Your task to perform on an android device: clear history in the chrome app Image 0: 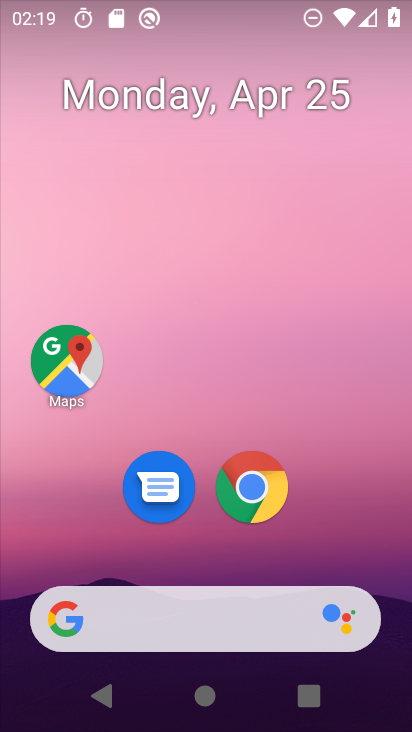
Step 0: drag from (357, 639) to (315, 233)
Your task to perform on an android device: clear history in the chrome app Image 1: 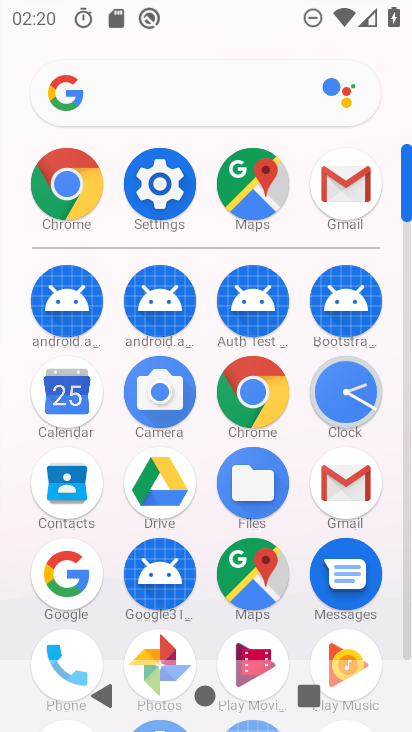
Step 1: click (70, 208)
Your task to perform on an android device: clear history in the chrome app Image 2: 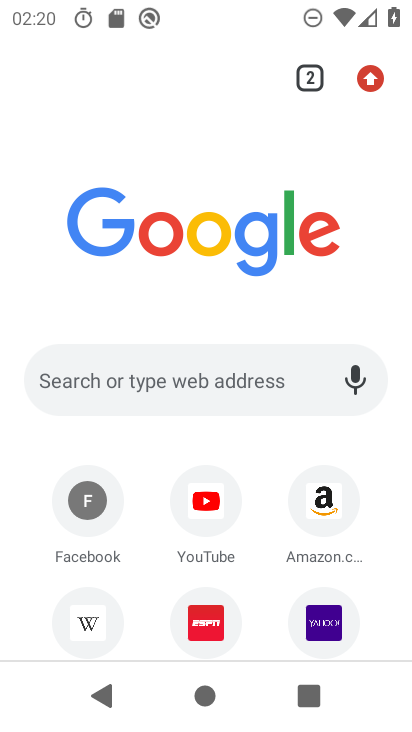
Step 2: click (361, 88)
Your task to perform on an android device: clear history in the chrome app Image 3: 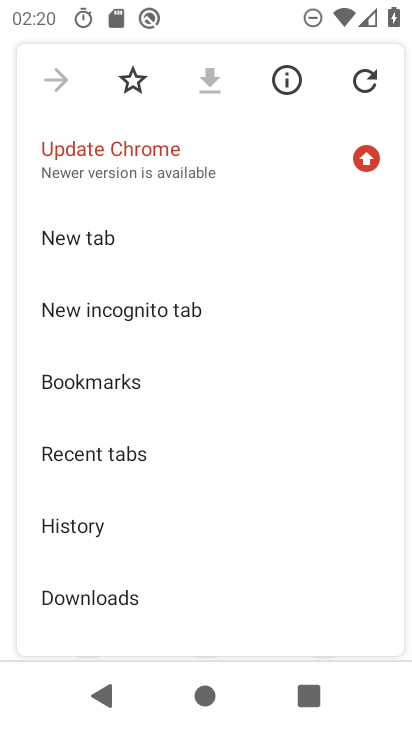
Step 3: click (78, 520)
Your task to perform on an android device: clear history in the chrome app Image 4: 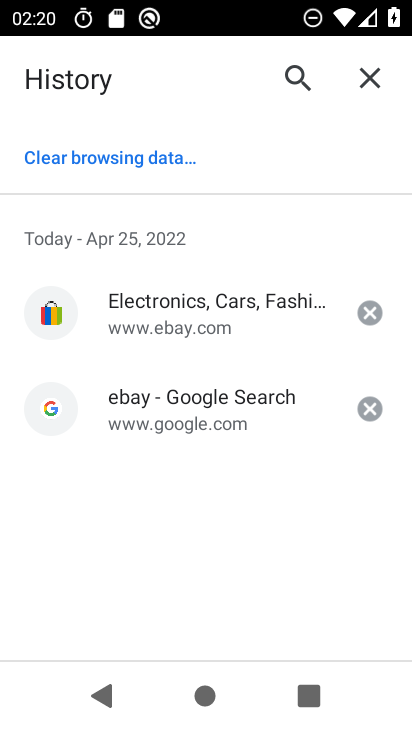
Step 4: click (132, 152)
Your task to perform on an android device: clear history in the chrome app Image 5: 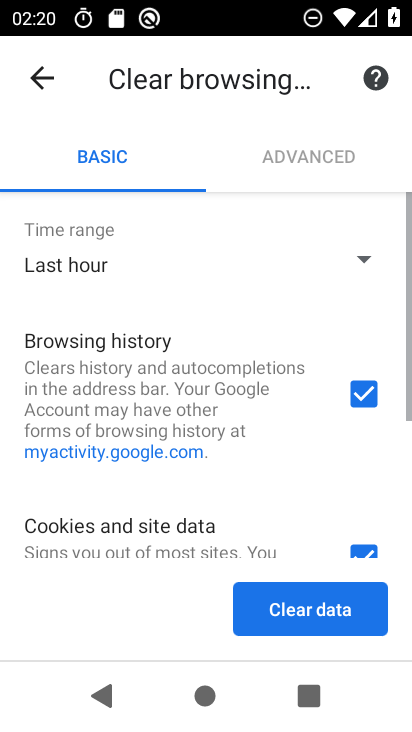
Step 5: click (315, 614)
Your task to perform on an android device: clear history in the chrome app Image 6: 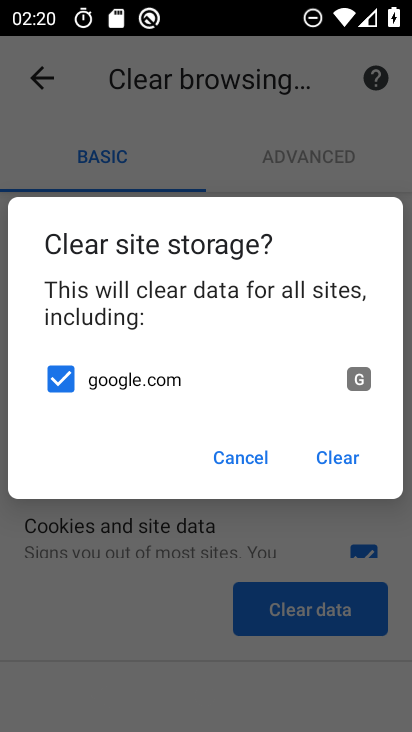
Step 6: task complete